Your task to perform on an android device: Open internet settings Image 0: 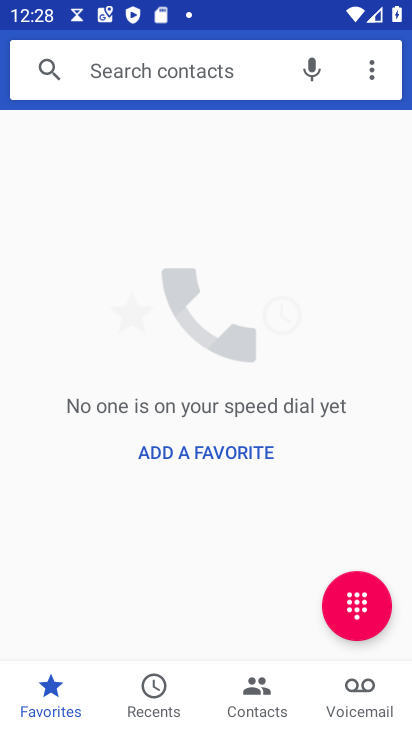
Step 0: press home button
Your task to perform on an android device: Open internet settings Image 1: 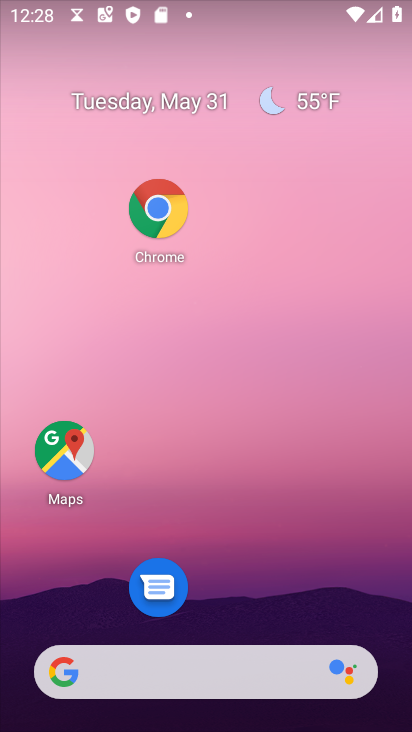
Step 1: drag from (287, 624) to (219, 179)
Your task to perform on an android device: Open internet settings Image 2: 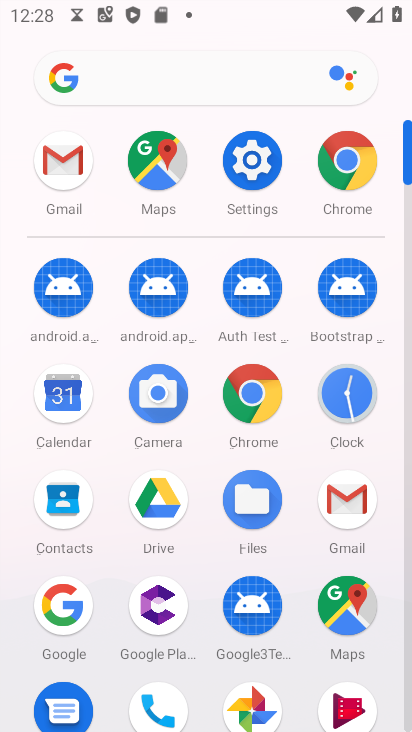
Step 2: click (256, 196)
Your task to perform on an android device: Open internet settings Image 3: 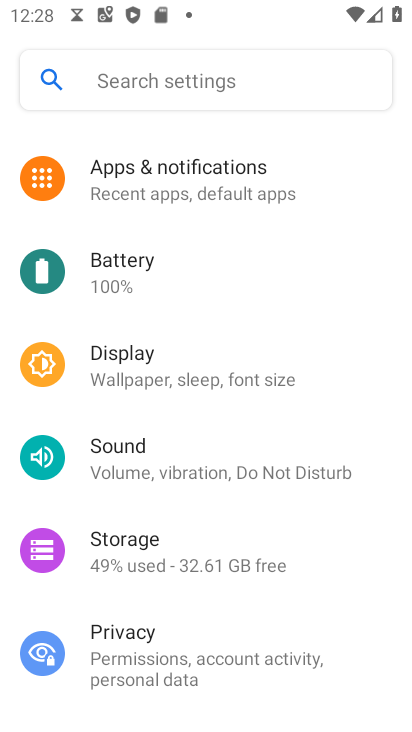
Step 3: drag from (256, 196) to (230, 498)
Your task to perform on an android device: Open internet settings Image 4: 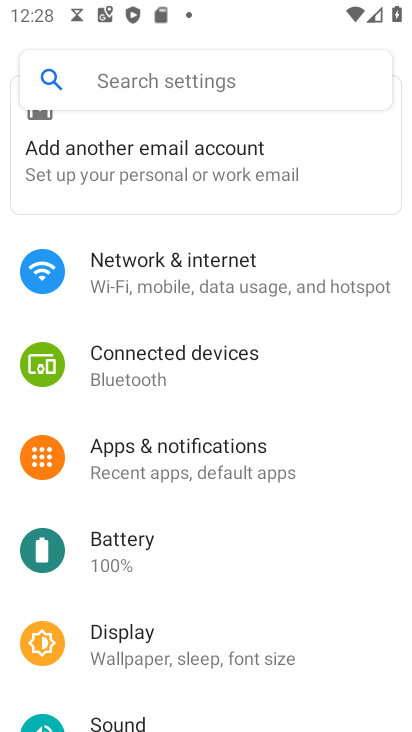
Step 4: click (231, 288)
Your task to perform on an android device: Open internet settings Image 5: 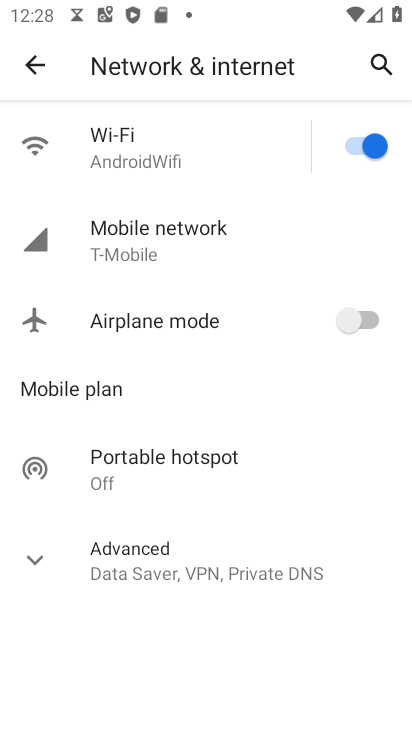
Step 5: task complete